Your task to perform on an android device: Search for Mexican restaurants on Maps Image 0: 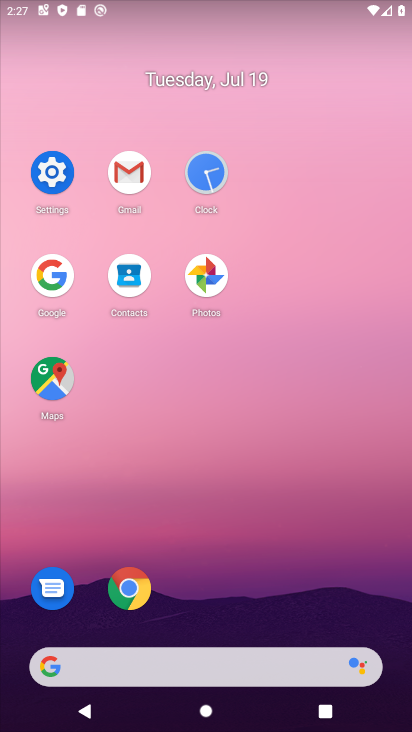
Step 0: click (60, 373)
Your task to perform on an android device: Search for Mexican restaurants on Maps Image 1: 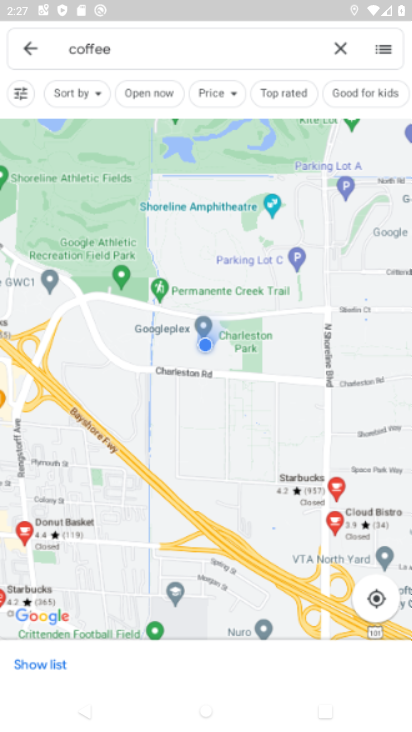
Step 1: click (335, 52)
Your task to perform on an android device: Search for Mexican restaurants on Maps Image 2: 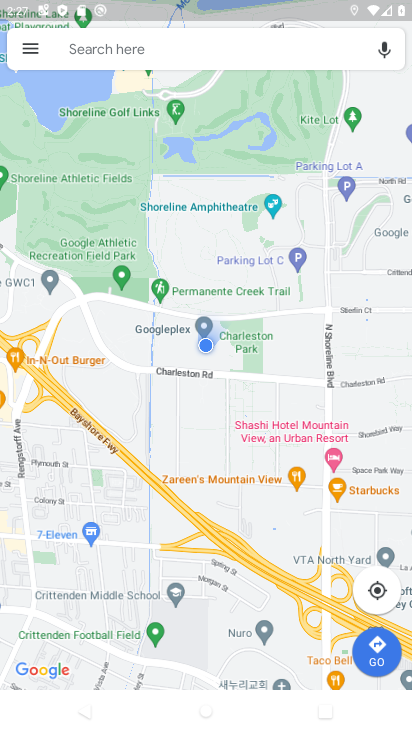
Step 2: click (217, 55)
Your task to perform on an android device: Search for Mexican restaurants on Maps Image 3: 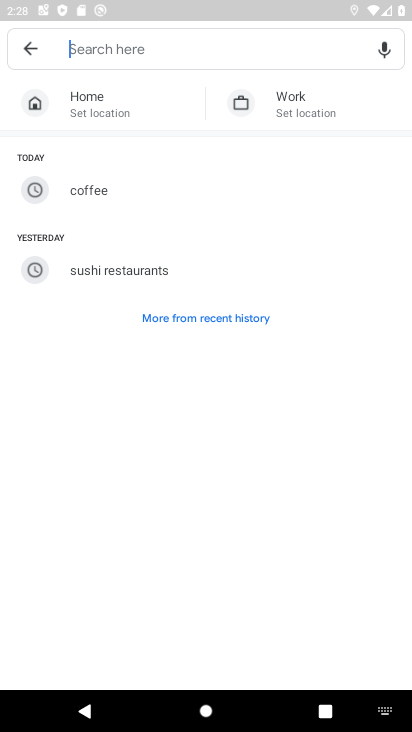
Step 3: type "mexican restaurants"
Your task to perform on an android device: Search for Mexican restaurants on Maps Image 4: 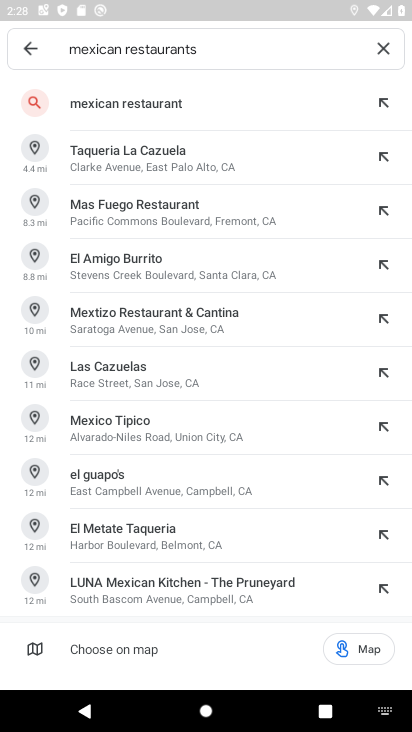
Step 4: click (141, 115)
Your task to perform on an android device: Search for Mexican restaurants on Maps Image 5: 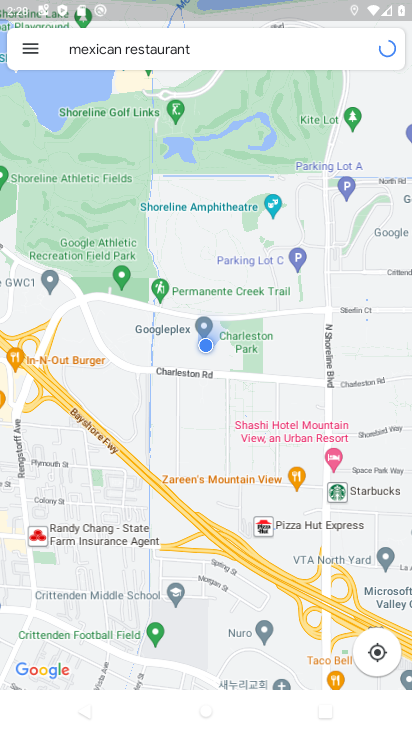
Step 5: task complete